Your task to perform on an android device: open chrome privacy settings Image 0: 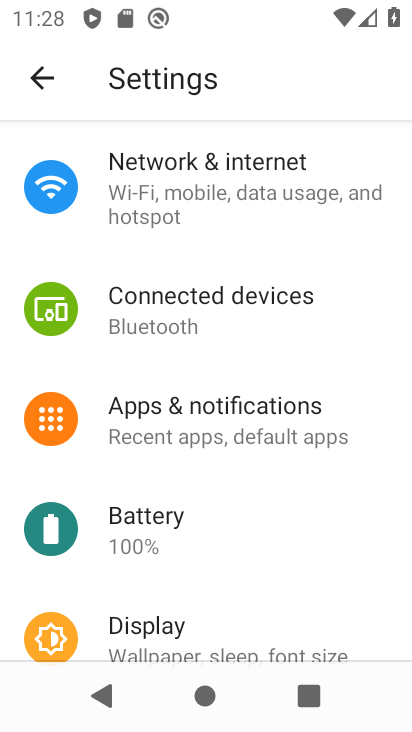
Step 0: press home button
Your task to perform on an android device: open chrome privacy settings Image 1: 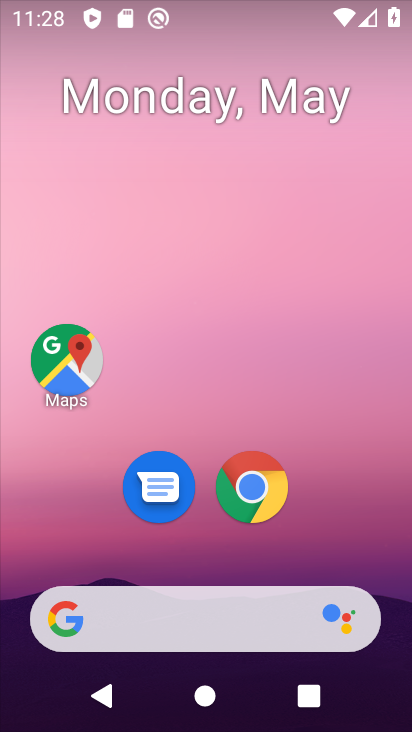
Step 1: click (257, 490)
Your task to perform on an android device: open chrome privacy settings Image 2: 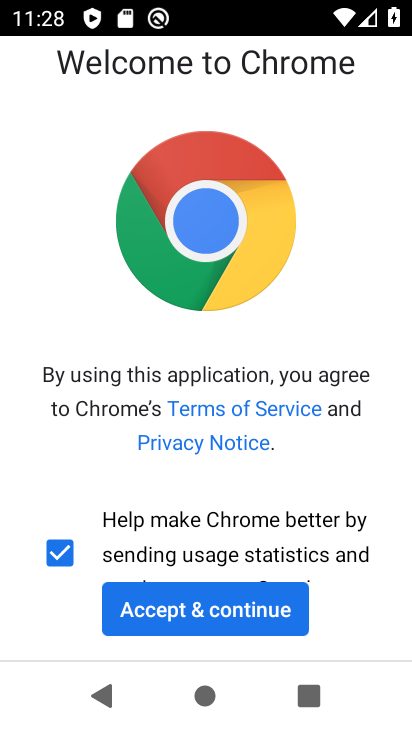
Step 2: click (217, 617)
Your task to perform on an android device: open chrome privacy settings Image 3: 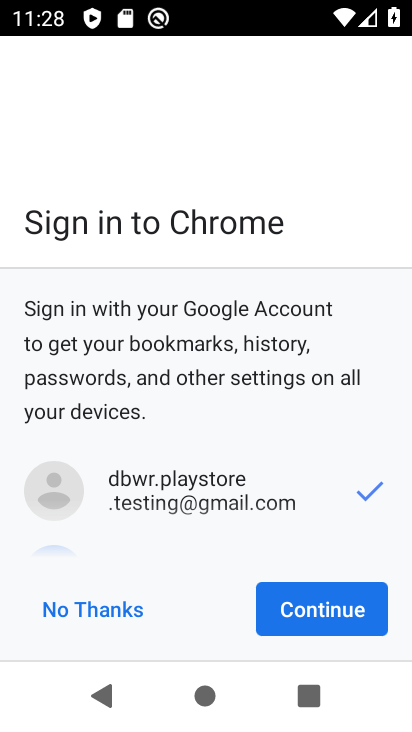
Step 3: click (141, 604)
Your task to perform on an android device: open chrome privacy settings Image 4: 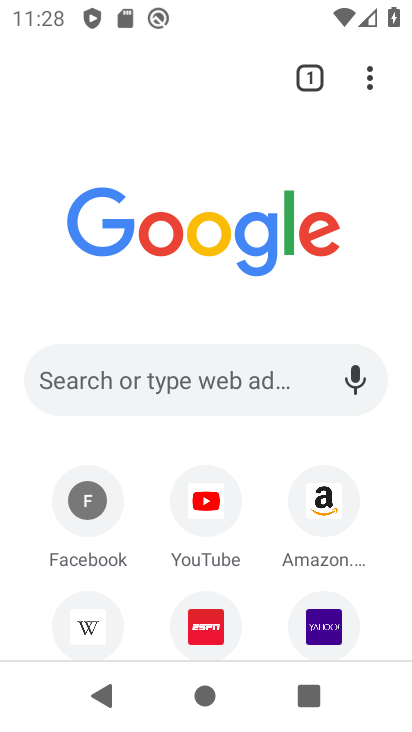
Step 4: click (368, 76)
Your task to perform on an android device: open chrome privacy settings Image 5: 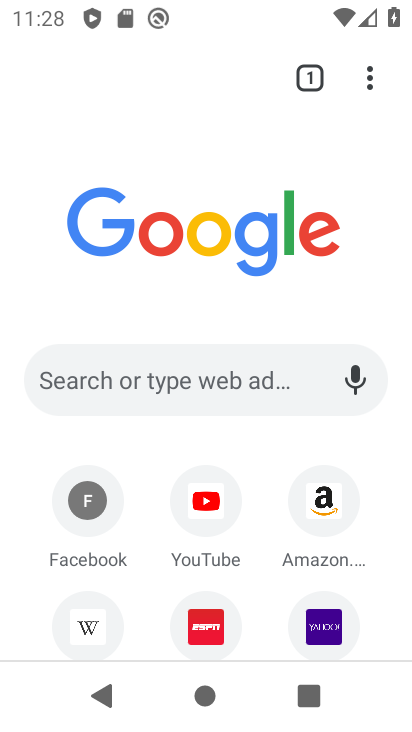
Step 5: click (357, 91)
Your task to perform on an android device: open chrome privacy settings Image 6: 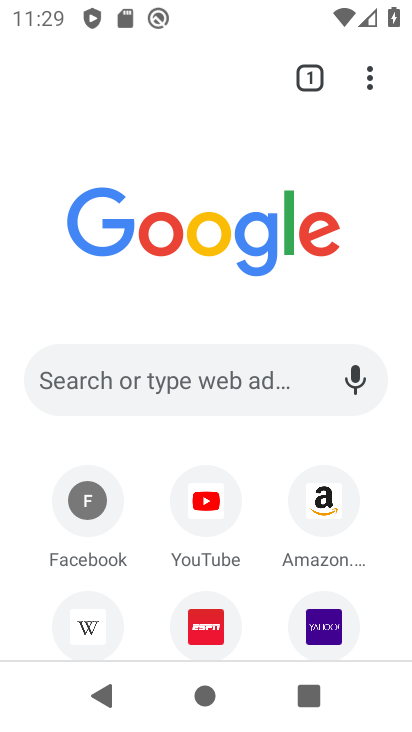
Step 6: click (376, 76)
Your task to perform on an android device: open chrome privacy settings Image 7: 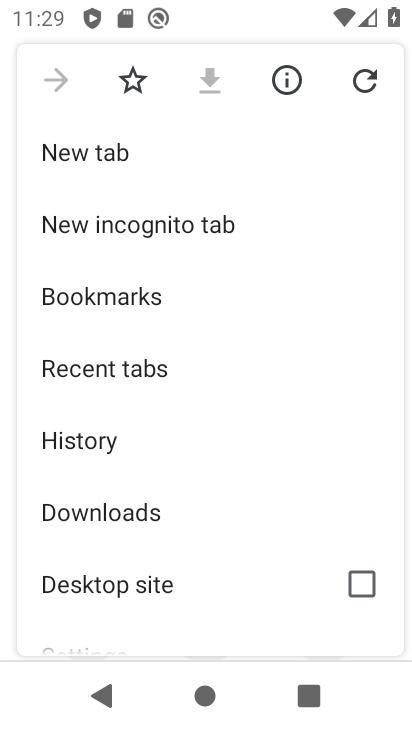
Step 7: drag from (33, 620) to (334, 196)
Your task to perform on an android device: open chrome privacy settings Image 8: 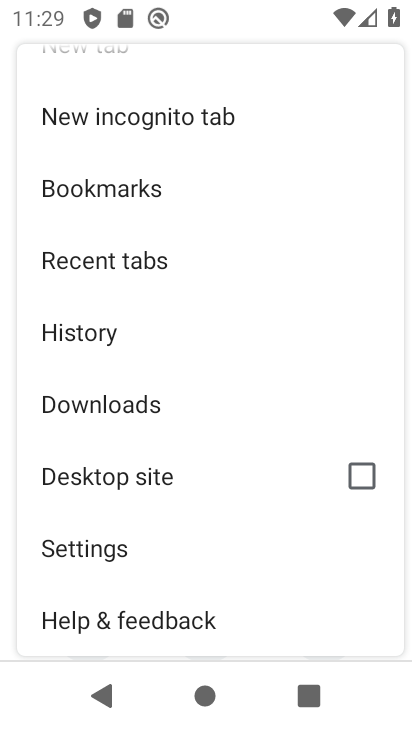
Step 8: click (93, 559)
Your task to perform on an android device: open chrome privacy settings Image 9: 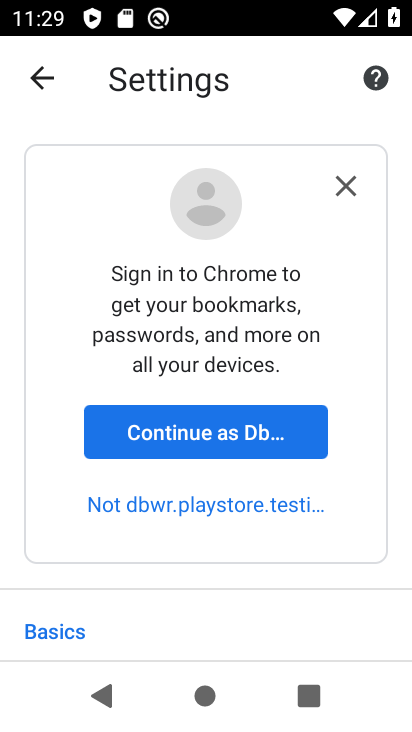
Step 9: click (353, 192)
Your task to perform on an android device: open chrome privacy settings Image 10: 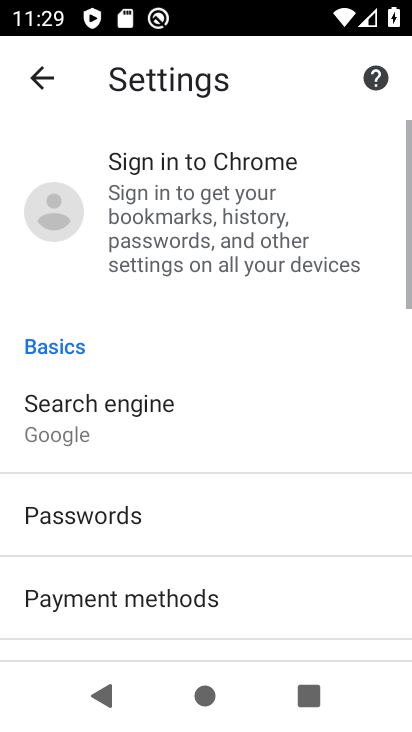
Step 10: drag from (45, 454) to (219, 182)
Your task to perform on an android device: open chrome privacy settings Image 11: 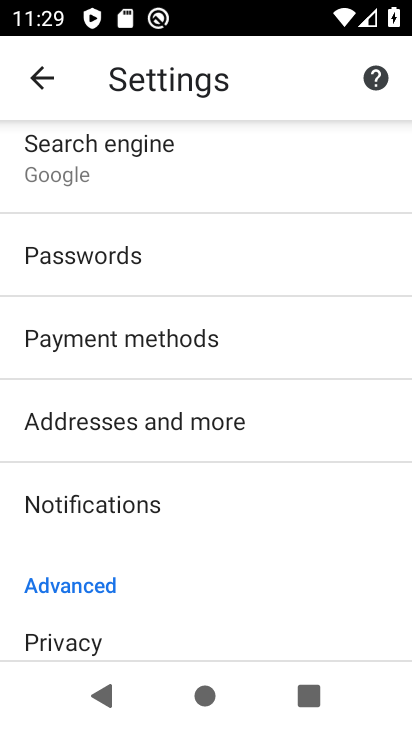
Step 11: click (41, 646)
Your task to perform on an android device: open chrome privacy settings Image 12: 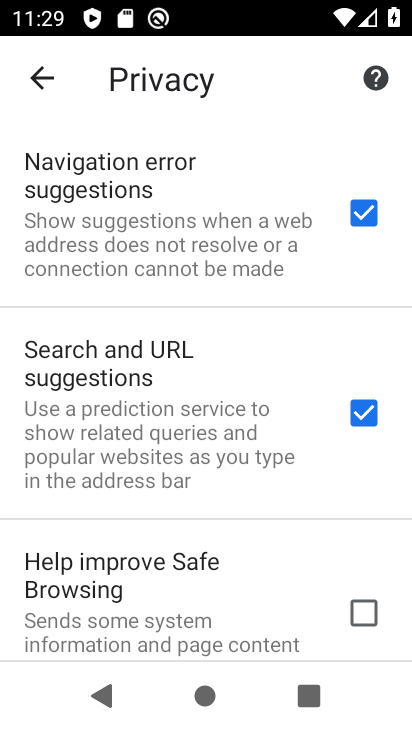
Step 12: task complete